Your task to perform on an android device: Open Google Chrome Image 0: 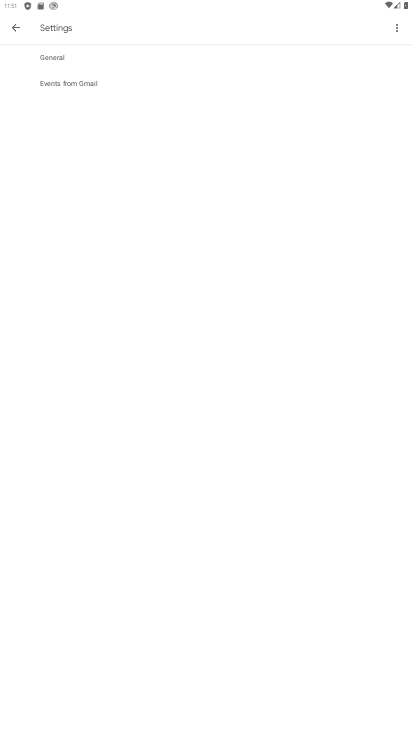
Step 0: press home button
Your task to perform on an android device: Open Google Chrome Image 1: 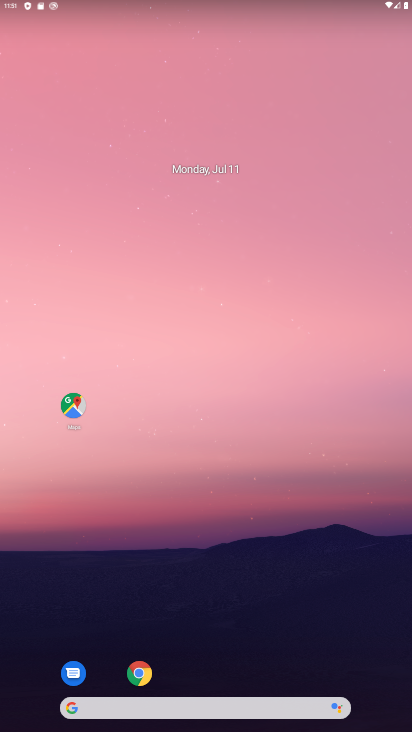
Step 1: click (141, 672)
Your task to perform on an android device: Open Google Chrome Image 2: 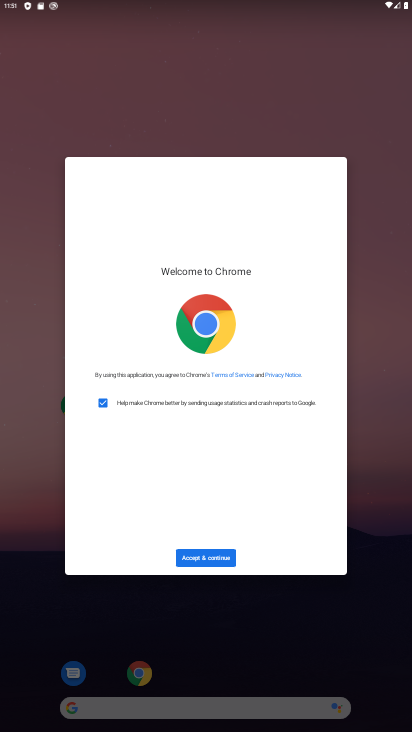
Step 2: click (218, 560)
Your task to perform on an android device: Open Google Chrome Image 3: 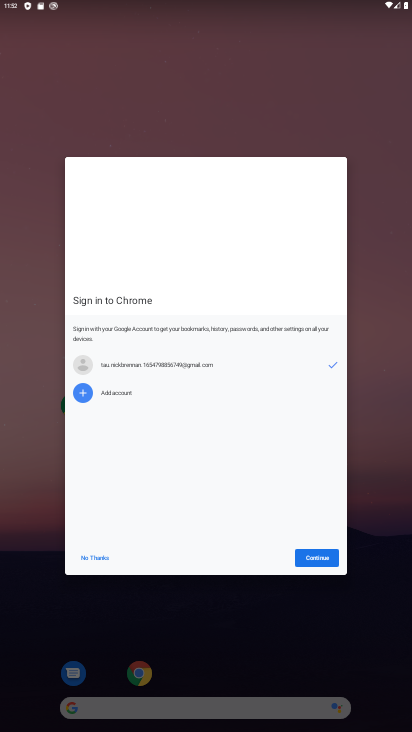
Step 3: click (311, 555)
Your task to perform on an android device: Open Google Chrome Image 4: 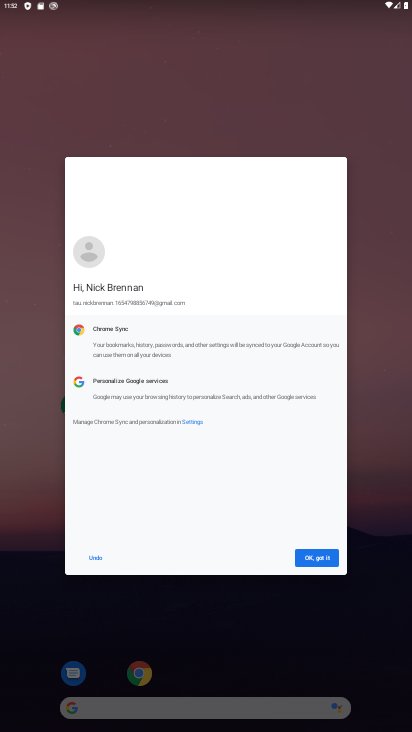
Step 4: click (315, 558)
Your task to perform on an android device: Open Google Chrome Image 5: 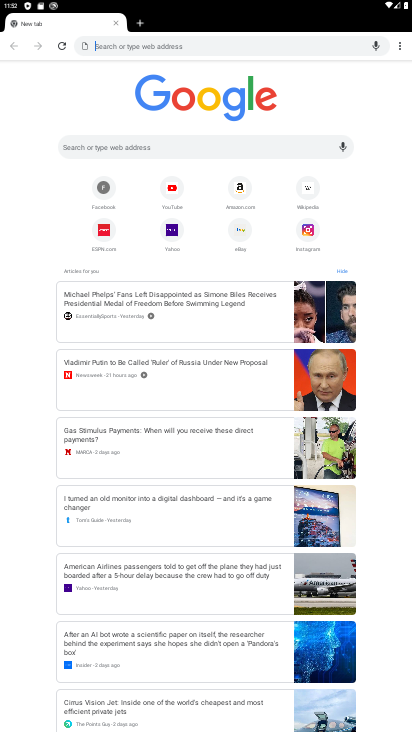
Step 5: task complete